Your task to perform on an android device: turn on data saver in the chrome app Image 0: 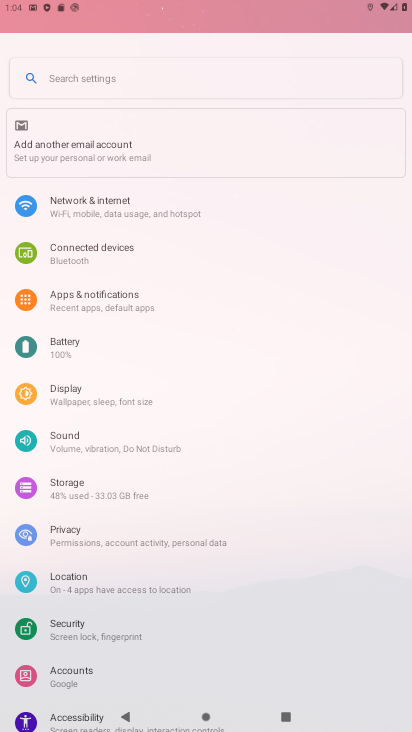
Step 0: click (288, 158)
Your task to perform on an android device: turn on data saver in the chrome app Image 1: 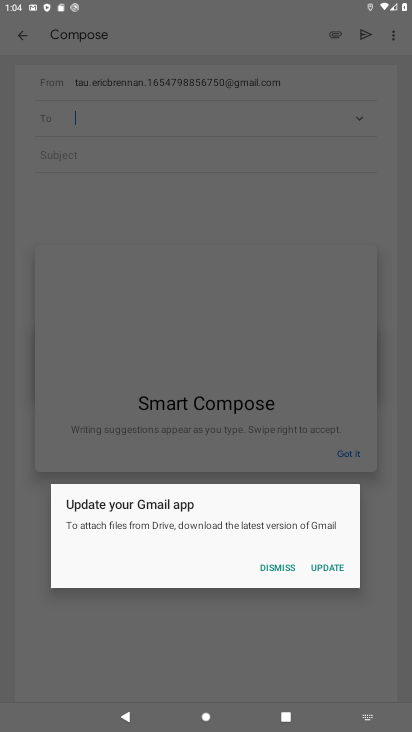
Step 1: press home button
Your task to perform on an android device: turn on data saver in the chrome app Image 2: 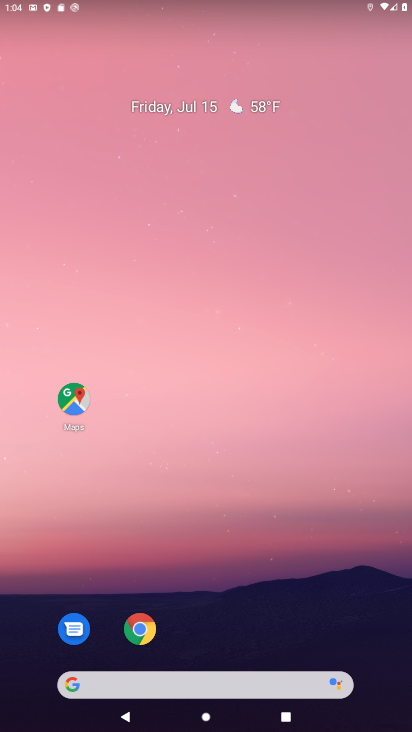
Step 2: click (144, 630)
Your task to perform on an android device: turn on data saver in the chrome app Image 3: 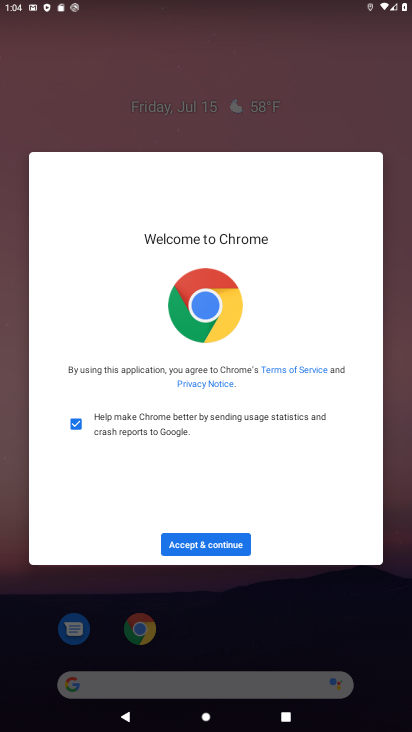
Step 3: click (185, 539)
Your task to perform on an android device: turn on data saver in the chrome app Image 4: 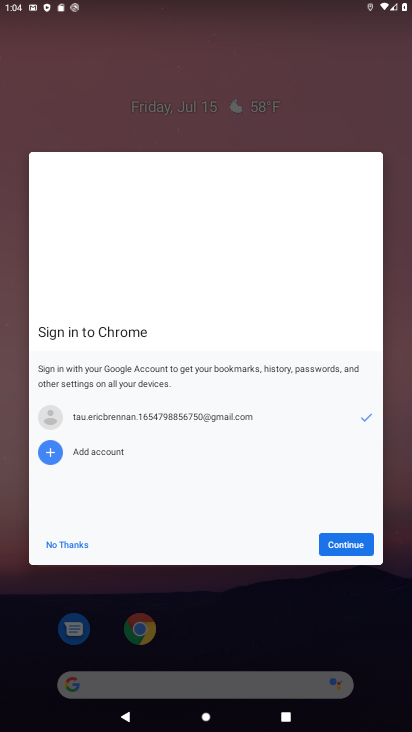
Step 4: click (346, 534)
Your task to perform on an android device: turn on data saver in the chrome app Image 5: 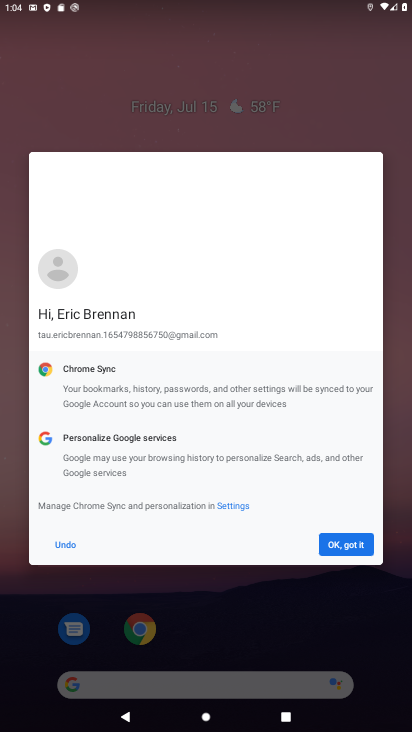
Step 5: click (348, 534)
Your task to perform on an android device: turn on data saver in the chrome app Image 6: 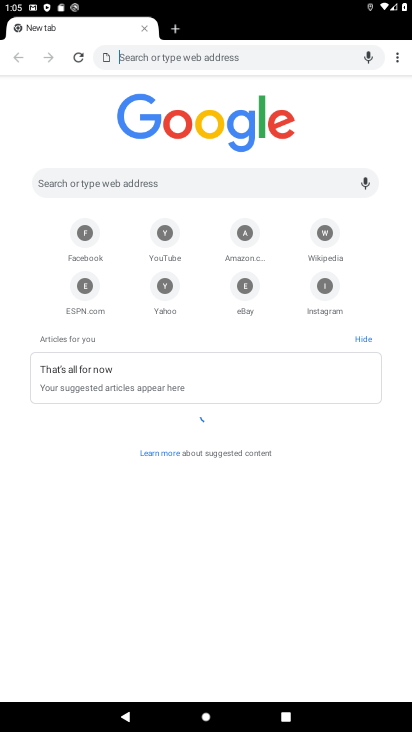
Step 6: click (401, 58)
Your task to perform on an android device: turn on data saver in the chrome app Image 7: 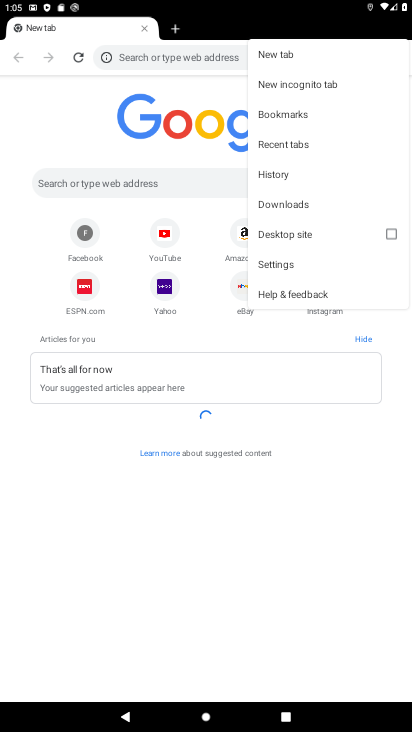
Step 7: click (321, 268)
Your task to perform on an android device: turn on data saver in the chrome app Image 8: 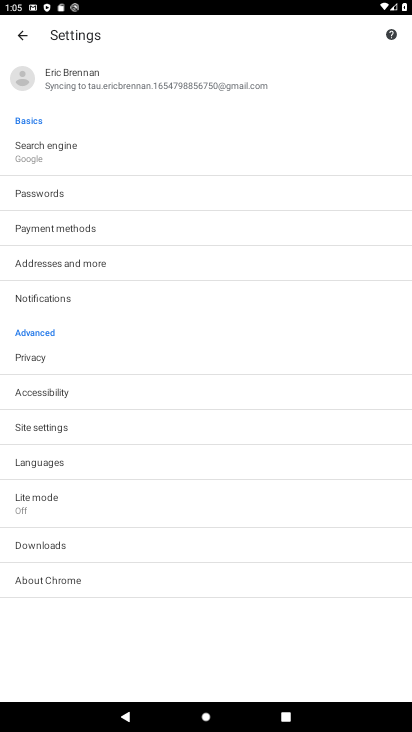
Step 8: click (129, 513)
Your task to perform on an android device: turn on data saver in the chrome app Image 9: 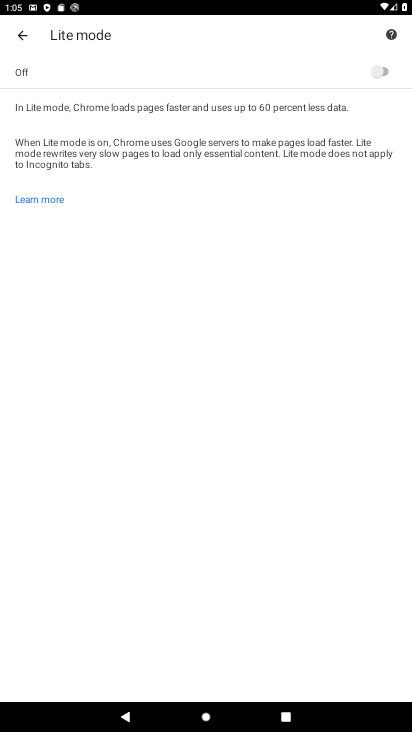
Step 9: click (382, 62)
Your task to perform on an android device: turn on data saver in the chrome app Image 10: 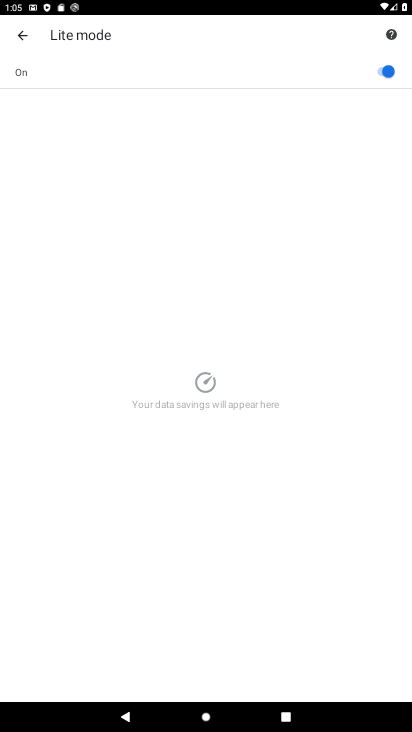
Step 10: task complete